Your task to perform on an android device: open the mobile data screen to see how much data has been used Image 0: 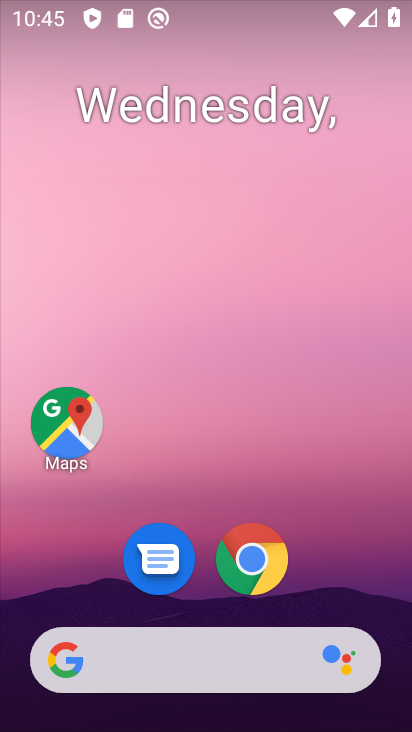
Step 0: drag from (334, 609) to (267, 4)
Your task to perform on an android device: open the mobile data screen to see how much data has been used Image 1: 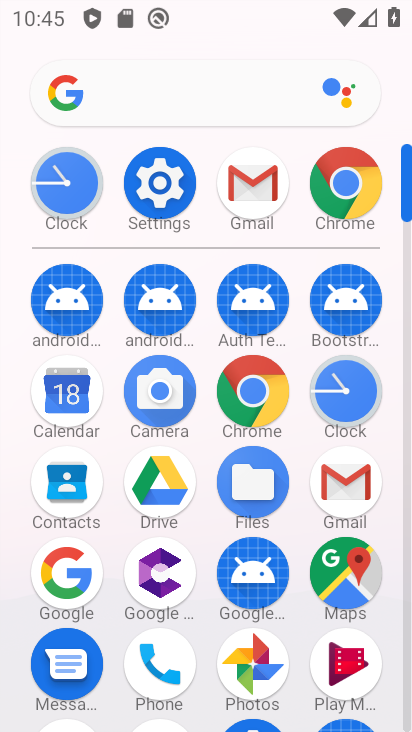
Step 1: click (163, 185)
Your task to perform on an android device: open the mobile data screen to see how much data has been used Image 2: 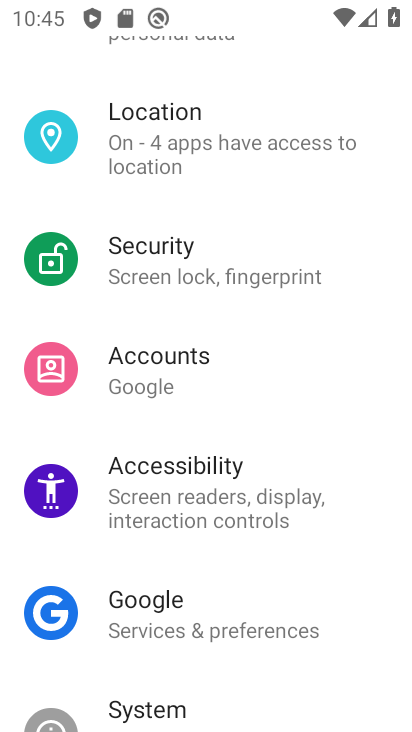
Step 2: click (402, 641)
Your task to perform on an android device: open the mobile data screen to see how much data has been used Image 3: 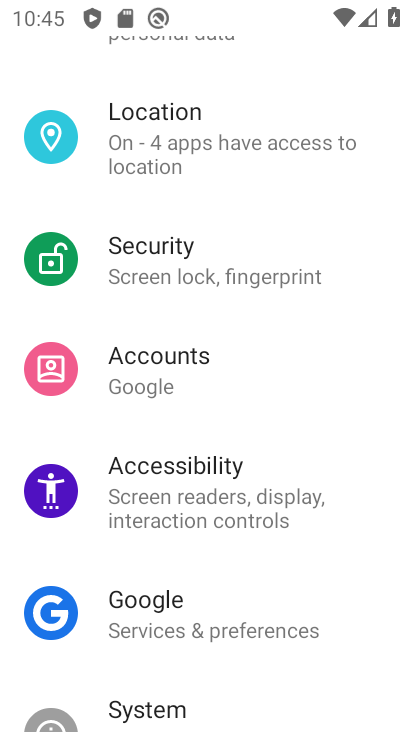
Step 3: drag from (260, 127) to (299, 647)
Your task to perform on an android device: open the mobile data screen to see how much data has been used Image 4: 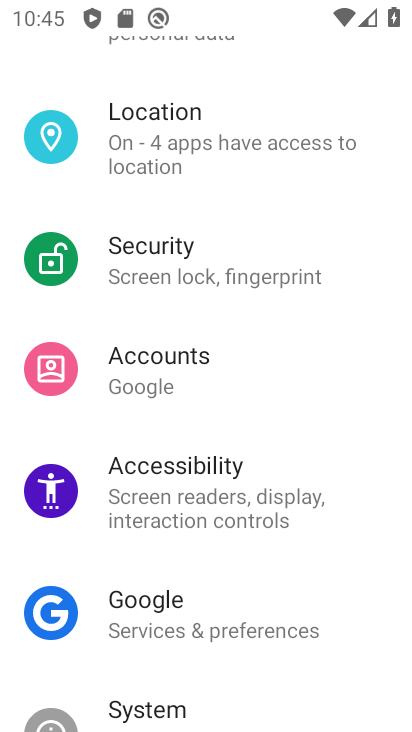
Step 4: drag from (220, 264) to (331, 720)
Your task to perform on an android device: open the mobile data screen to see how much data has been used Image 5: 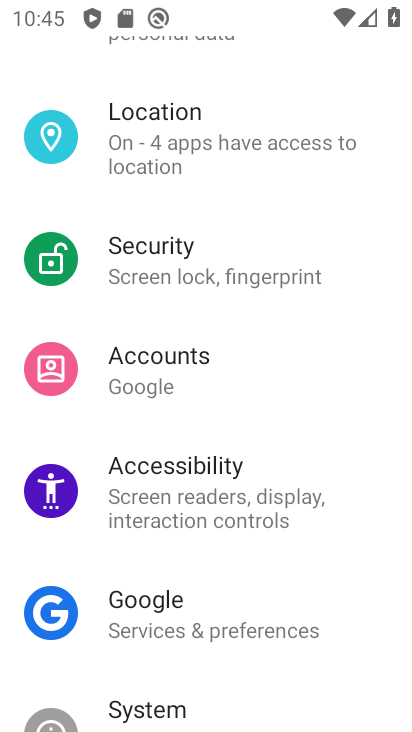
Step 5: drag from (186, 213) to (265, 613)
Your task to perform on an android device: open the mobile data screen to see how much data has been used Image 6: 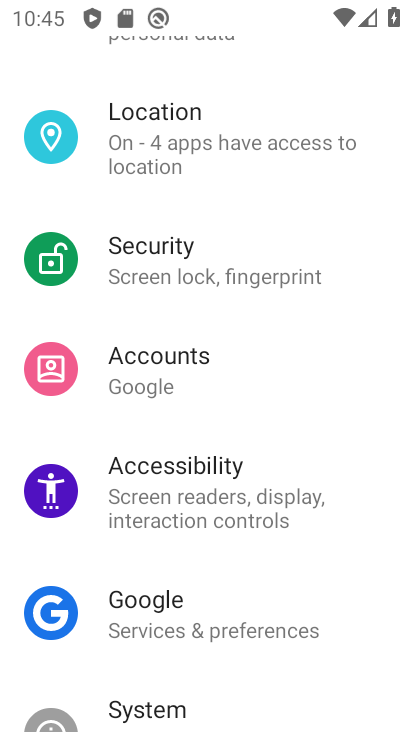
Step 6: drag from (232, 146) to (347, 609)
Your task to perform on an android device: open the mobile data screen to see how much data has been used Image 7: 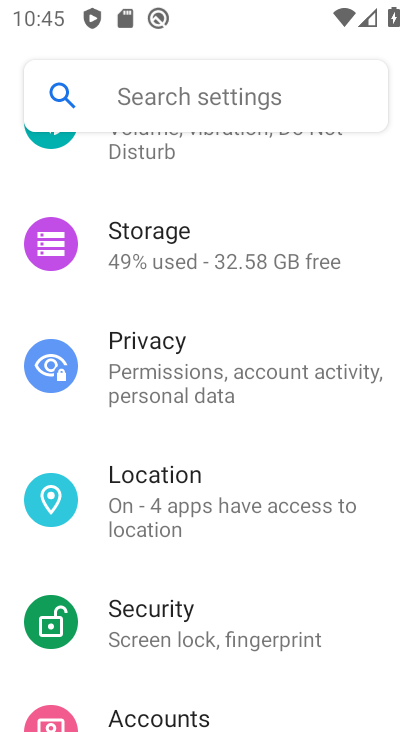
Step 7: drag from (211, 152) to (290, 649)
Your task to perform on an android device: open the mobile data screen to see how much data has been used Image 8: 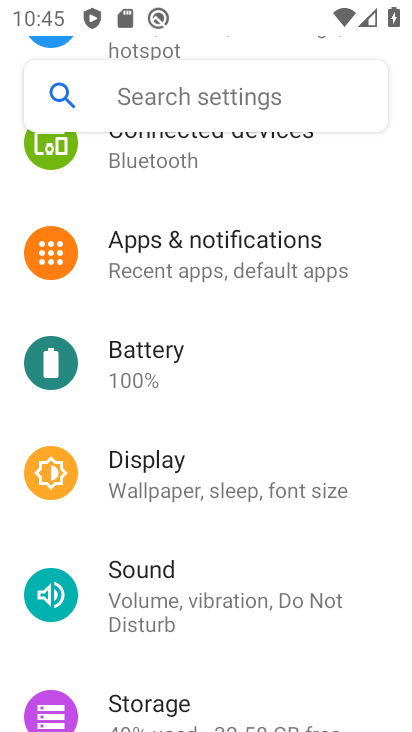
Step 8: drag from (203, 210) to (226, 726)
Your task to perform on an android device: open the mobile data screen to see how much data has been used Image 9: 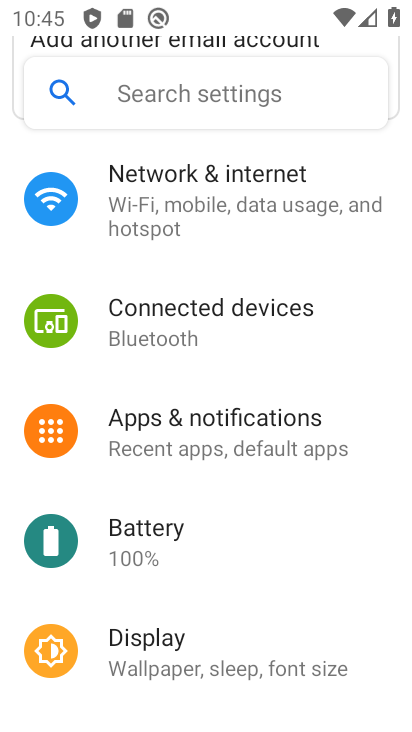
Step 9: drag from (147, 304) to (203, 717)
Your task to perform on an android device: open the mobile data screen to see how much data has been used Image 10: 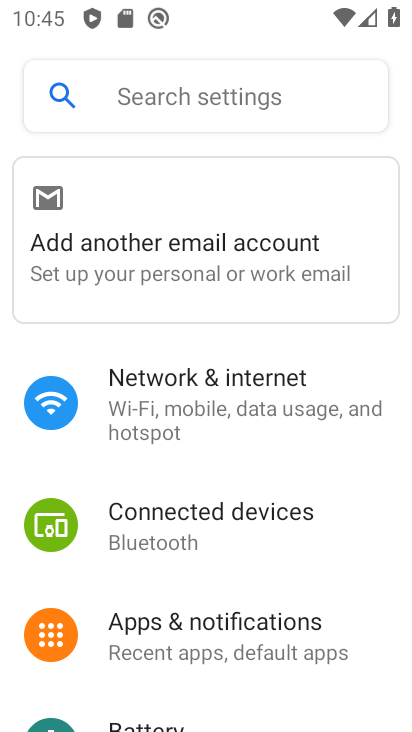
Step 10: click (131, 397)
Your task to perform on an android device: open the mobile data screen to see how much data has been used Image 11: 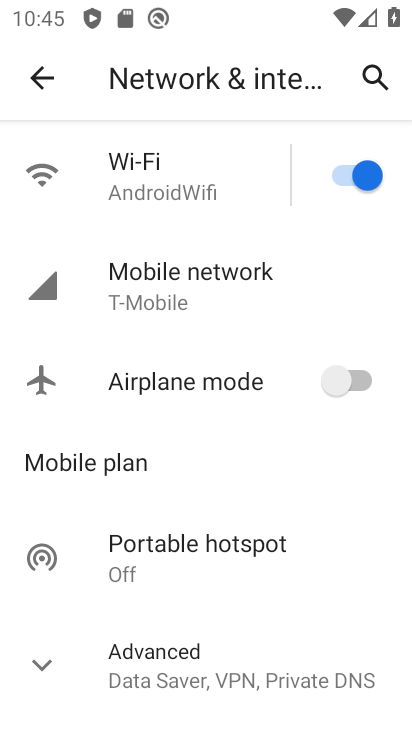
Step 11: click (191, 286)
Your task to perform on an android device: open the mobile data screen to see how much data has been used Image 12: 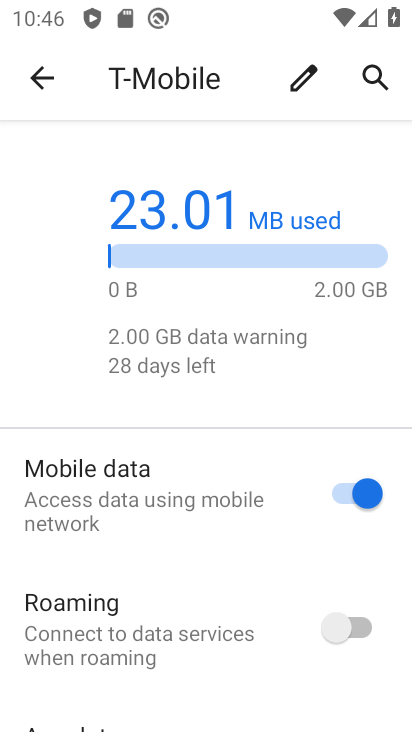
Step 12: task complete